Your task to perform on an android device: turn vacation reply on in the gmail app Image 0: 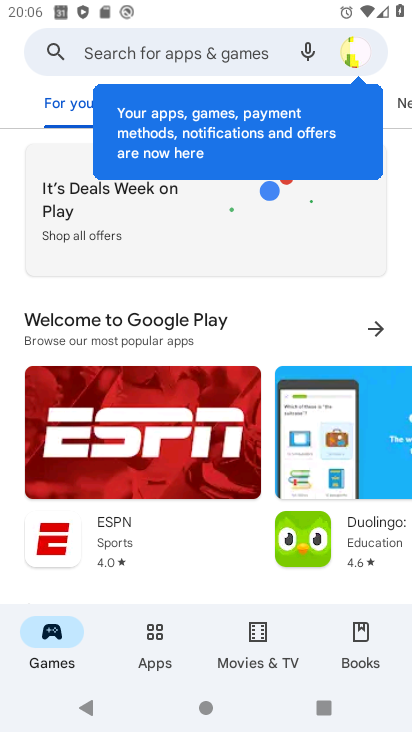
Step 0: press home button
Your task to perform on an android device: turn vacation reply on in the gmail app Image 1: 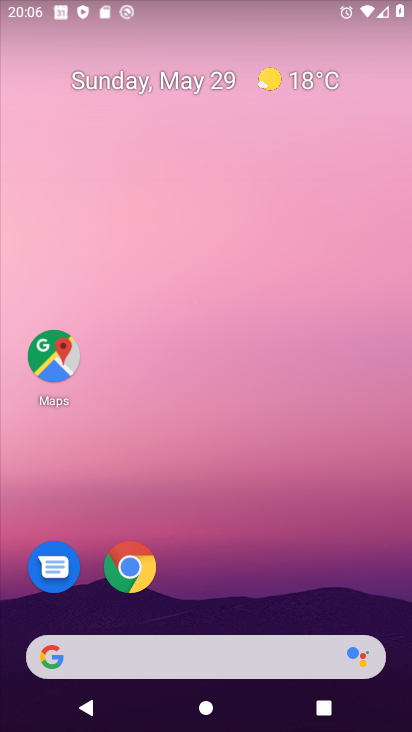
Step 1: drag from (398, 685) to (380, 12)
Your task to perform on an android device: turn vacation reply on in the gmail app Image 2: 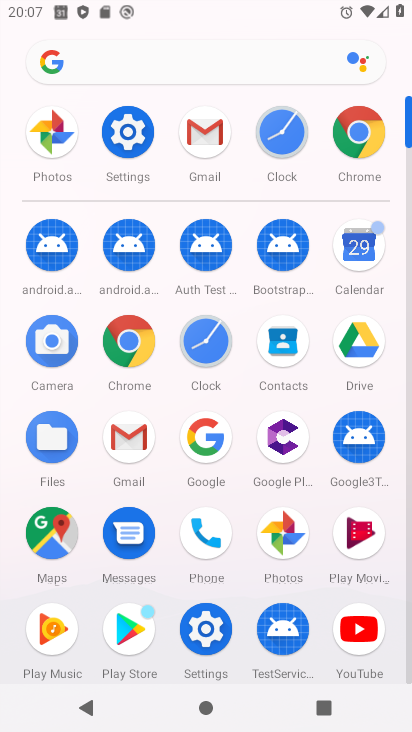
Step 2: click (121, 444)
Your task to perform on an android device: turn vacation reply on in the gmail app Image 3: 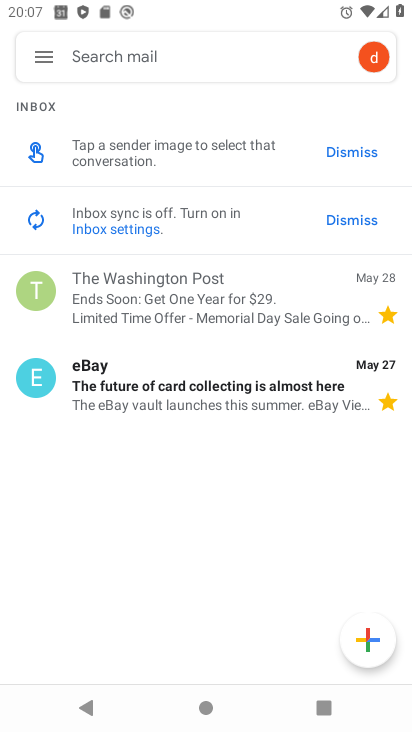
Step 3: click (50, 50)
Your task to perform on an android device: turn vacation reply on in the gmail app Image 4: 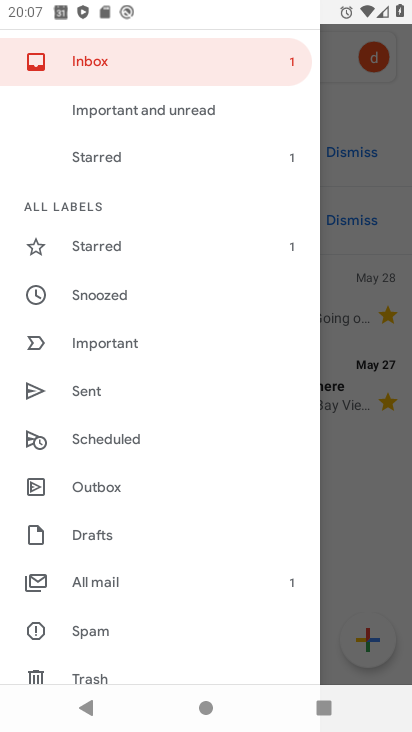
Step 4: drag from (146, 656) to (205, 121)
Your task to perform on an android device: turn vacation reply on in the gmail app Image 5: 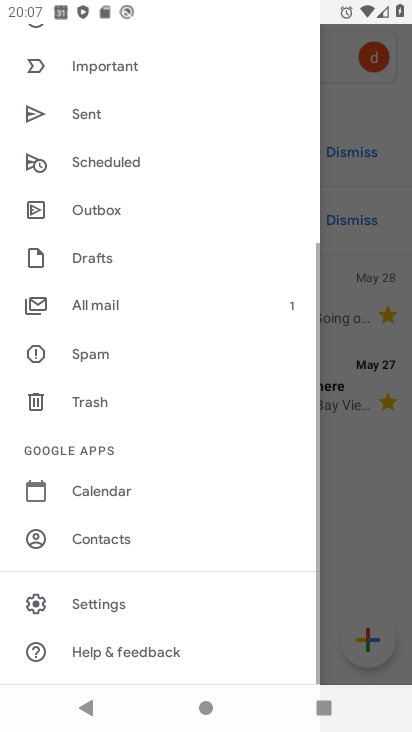
Step 5: click (83, 607)
Your task to perform on an android device: turn vacation reply on in the gmail app Image 6: 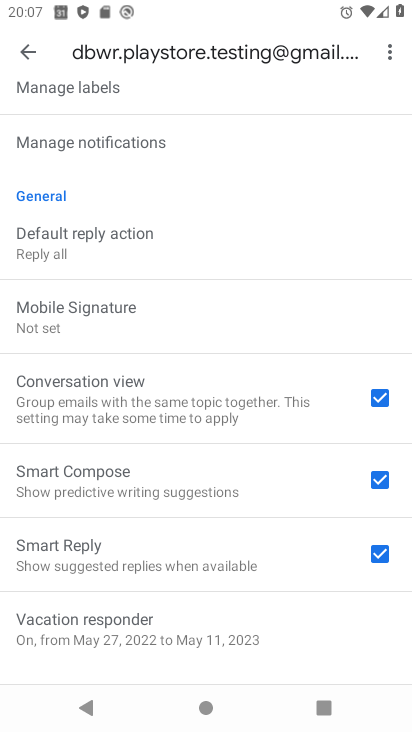
Step 6: drag from (181, 640) to (207, 360)
Your task to perform on an android device: turn vacation reply on in the gmail app Image 7: 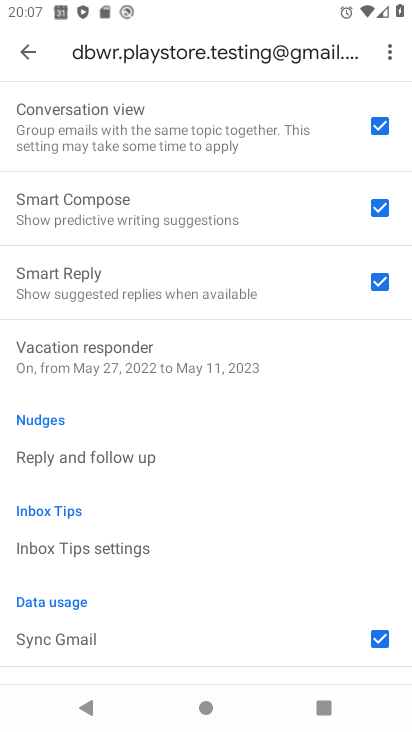
Step 7: click (127, 351)
Your task to perform on an android device: turn vacation reply on in the gmail app Image 8: 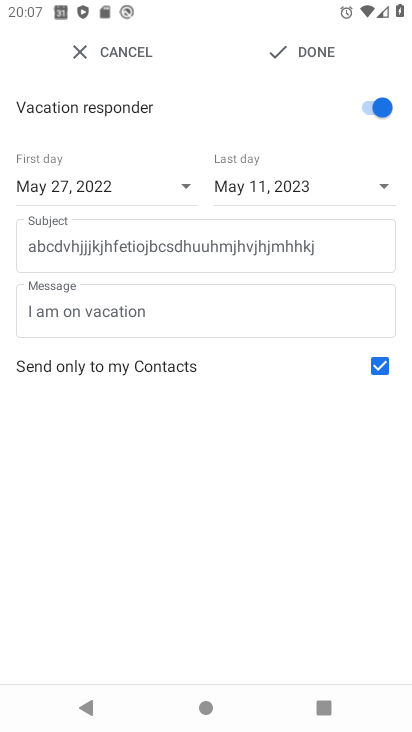
Step 8: task complete